Your task to perform on an android device: Open the web browser Image 0: 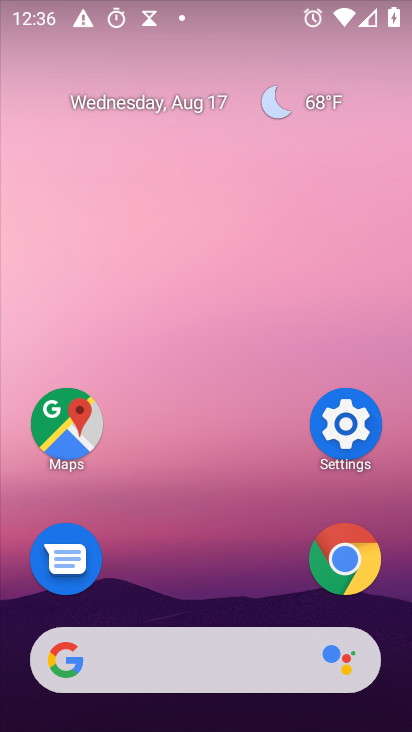
Step 0: click (330, 564)
Your task to perform on an android device: Open the web browser Image 1: 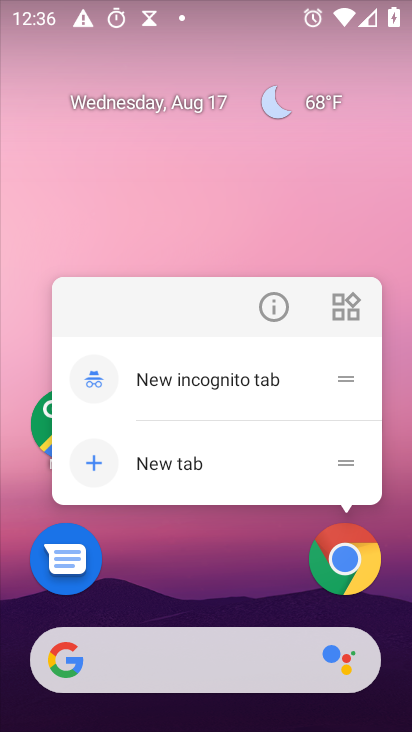
Step 1: click (339, 557)
Your task to perform on an android device: Open the web browser Image 2: 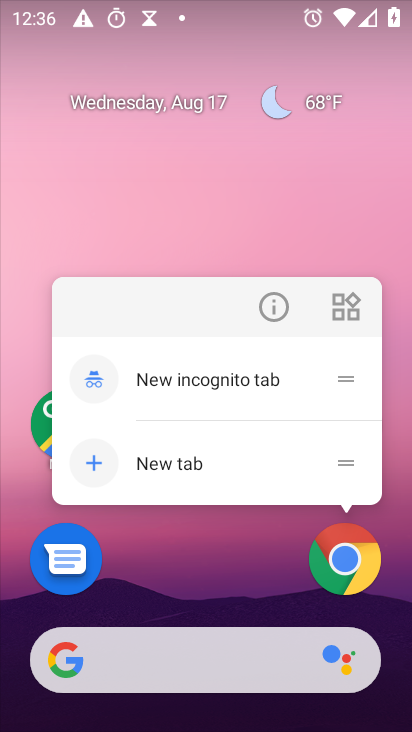
Step 2: click (347, 554)
Your task to perform on an android device: Open the web browser Image 3: 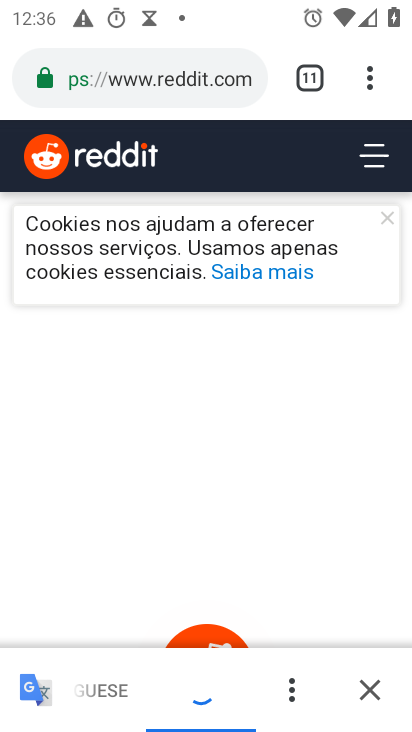
Step 3: task complete